Your task to perform on an android device: remove spam from my inbox in the gmail app Image 0: 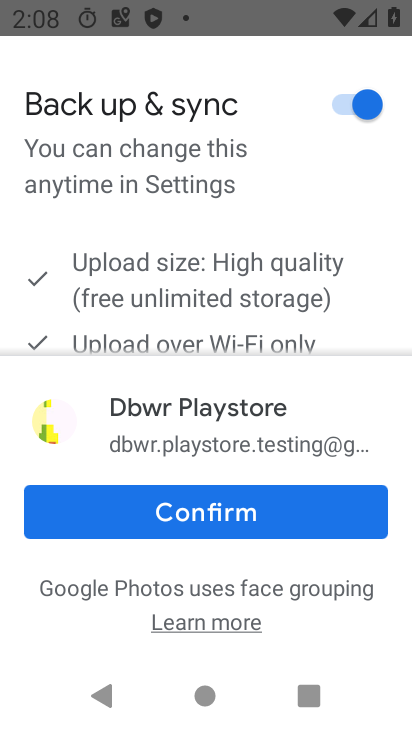
Step 0: press home button
Your task to perform on an android device: remove spam from my inbox in the gmail app Image 1: 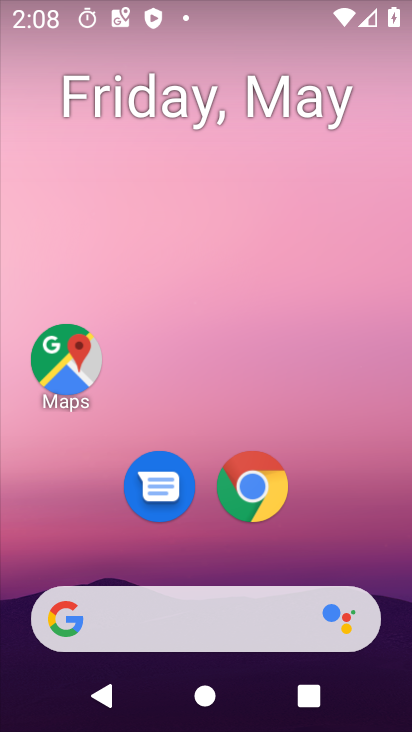
Step 1: drag from (408, 702) to (352, 228)
Your task to perform on an android device: remove spam from my inbox in the gmail app Image 2: 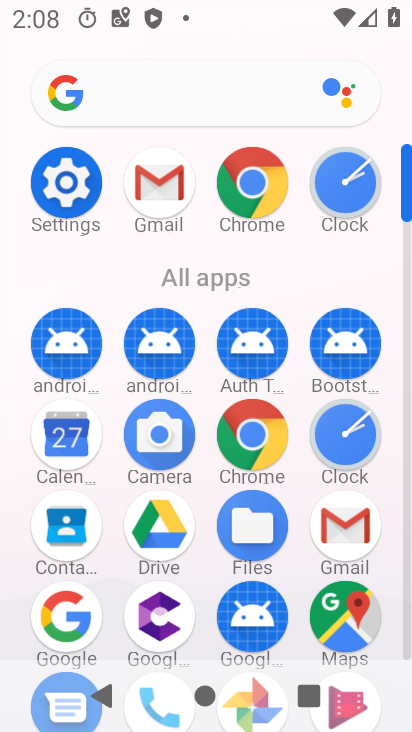
Step 2: click (339, 536)
Your task to perform on an android device: remove spam from my inbox in the gmail app Image 3: 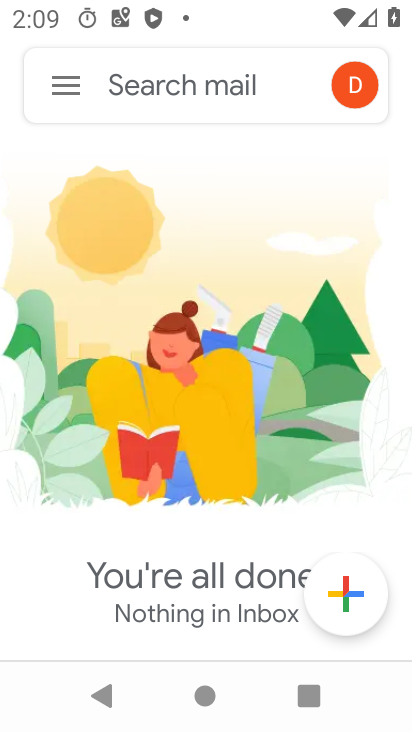
Step 3: click (73, 87)
Your task to perform on an android device: remove spam from my inbox in the gmail app Image 4: 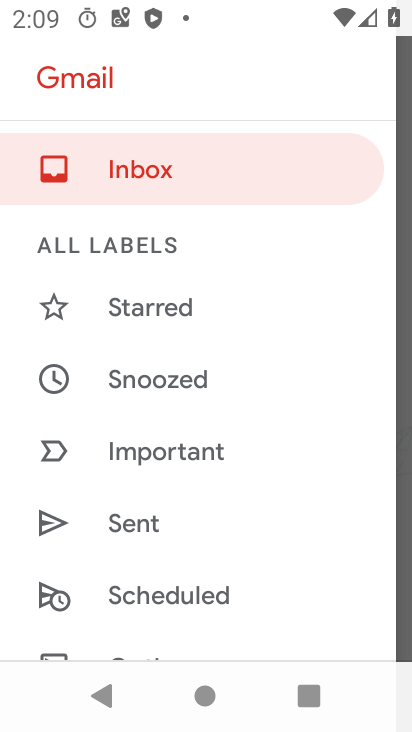
Step 4: drag from (275, 576) to (253, 78)
Your task to perform on an android device: remove spam from my inbox in the gmail app Image 5: 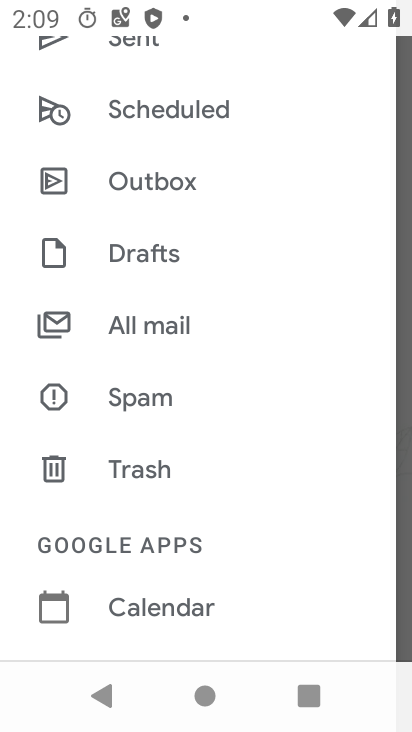
Step 5: click (111, 398)
Your task to perform on an android device: remove spam from my inbox in the gmail app Image 6: 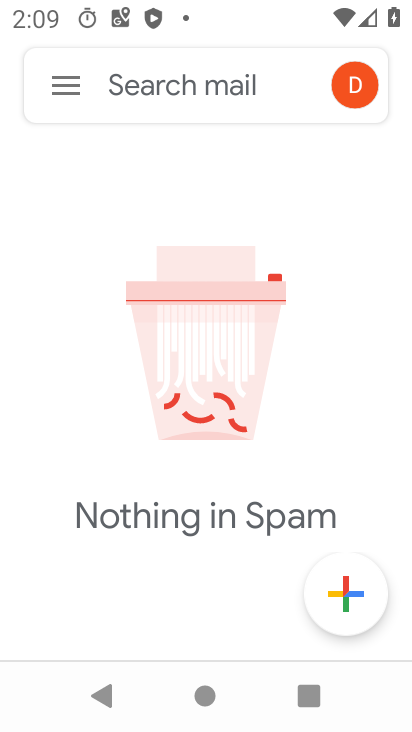
Step 6: task complete